Your task to perform on an android device: star an email in the gmail app Image 0: 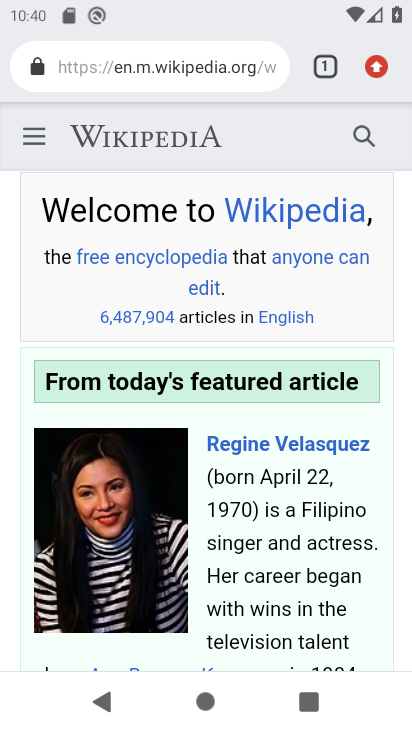
Step 0: press home button
Your task to perform on an android device: star an email in the gmail app Image 1: 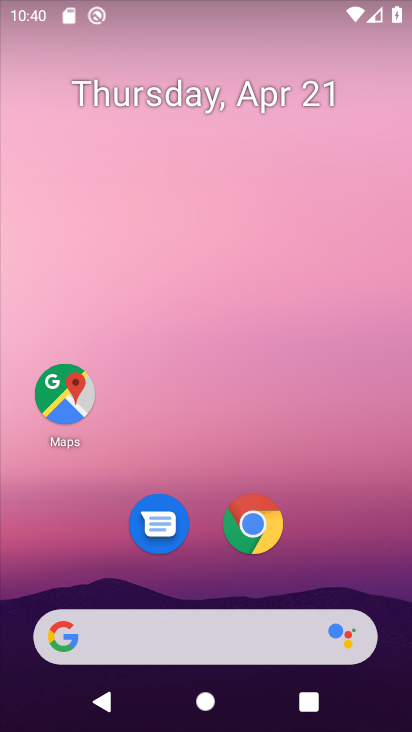
Step 1: drag from (306, 522) to (336, 85)
Your task to perform on an android device: star an email in the gmail app Image 2: 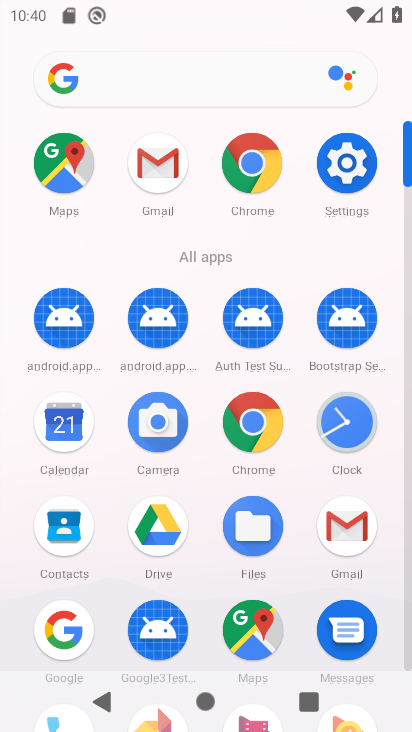
Step 2: click (158, 162)
Your task to perform on an android device: star an email in the gmail app Image 3: 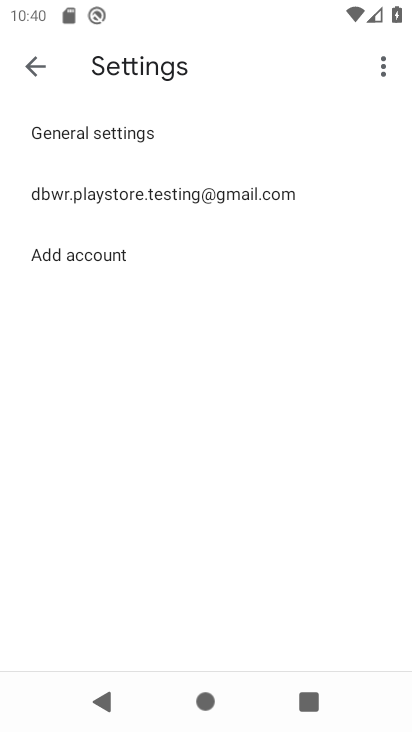
Step 3: click (33, 66)
Your task to perform on an android device: star an email in the gmail app Image 4: 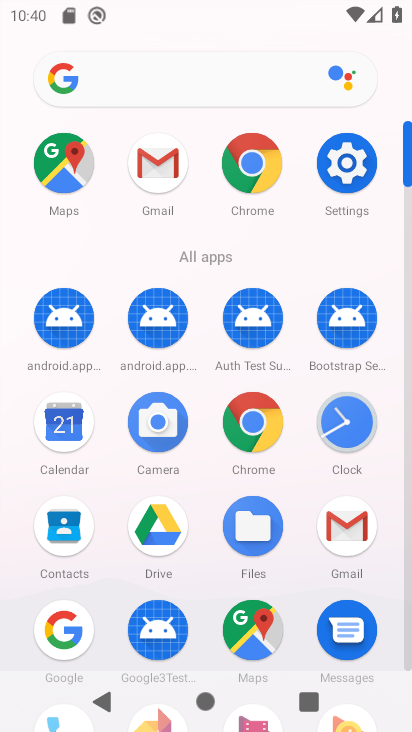
Step 4: click (165, 157)
Your task to perform on an android device: star an email in the gmail app Image 5: 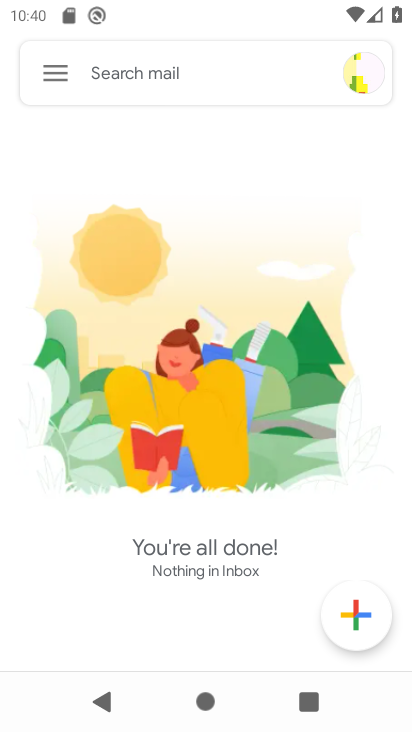
Step 5: click (62, 69)
Your task to perform on an android device: star an email in the gmail app Image 6: 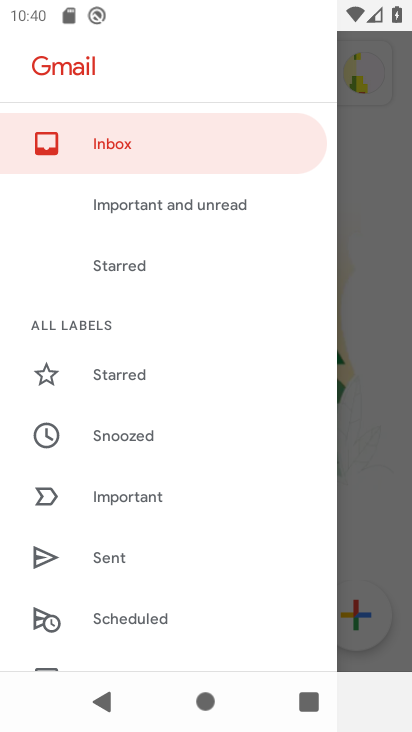
Step 6: drag from (168, 585) to (300, 103)
Your task to perform on an android device: star an email in the gmail app Image 7: 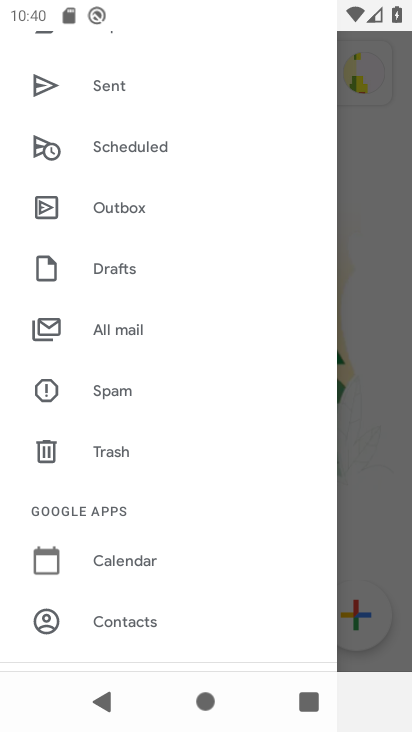
Step 7: click (140, 319)
Your task to perform on an android device: star an email in the gmail app Image 8: 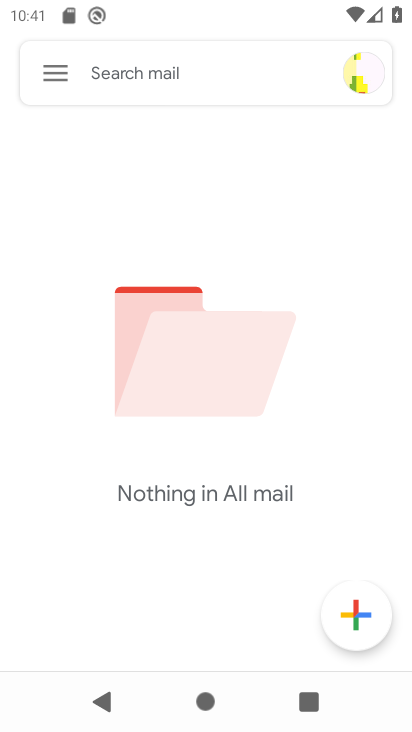
Step 8: task complete